Your task to perform on an android device: change the clock display to show seconds Image 0: 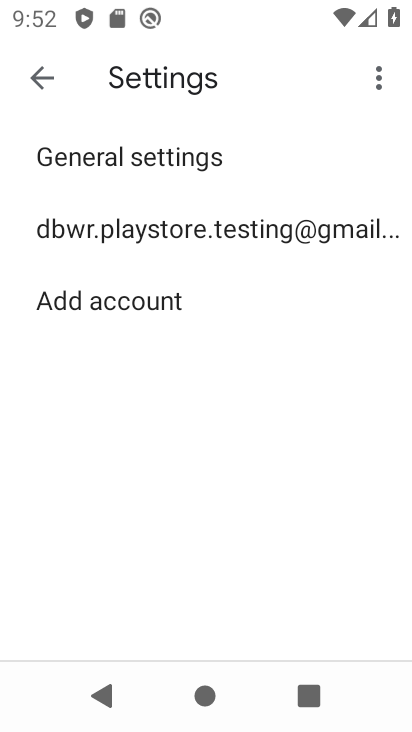
Step 0: press home button
Your task to perform on an android device: change the clock display to show seconds Image 1: 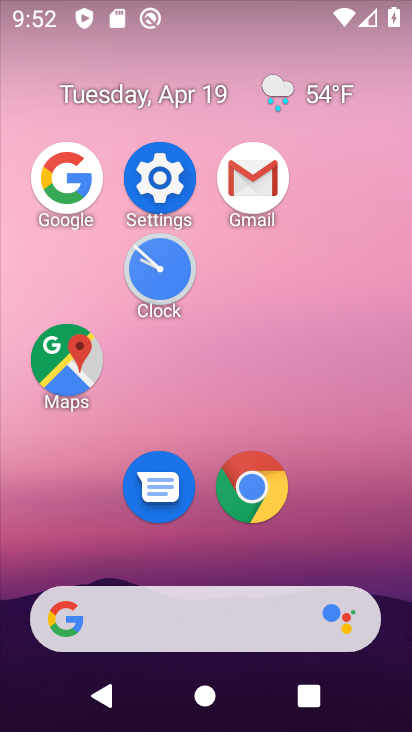
Step 1: click (187, 278)
Your task to perform on an android device: change the clock display to show seconds Image 2: 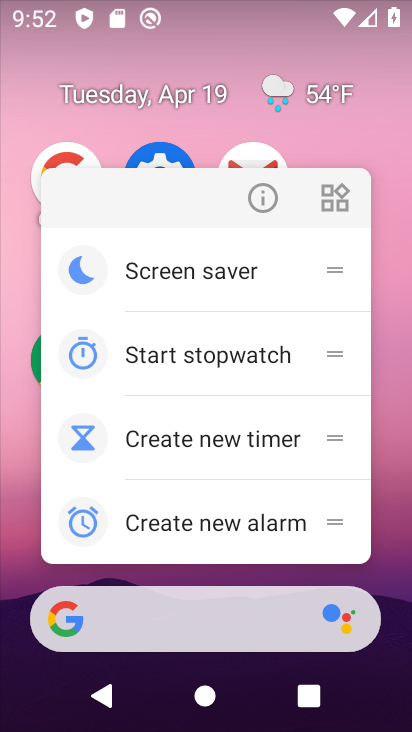
Step 2: click (405, 128)
Your task to perform on an android device: change the clock display to show seconds Image 3: 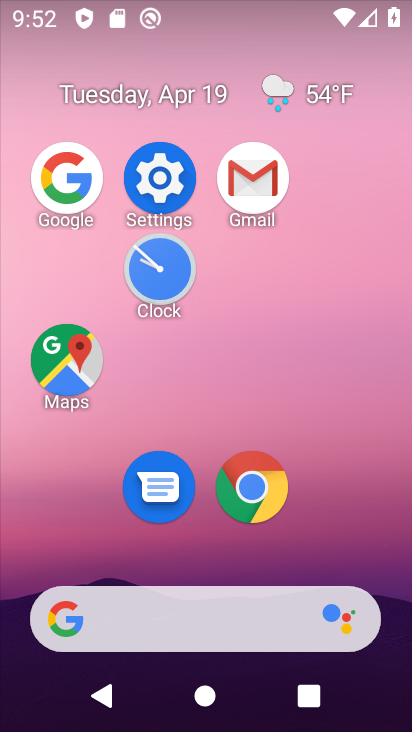
Step 3: click (151, 261)
Your task to perform on an android device: change the clock display to show seconds Image 4: 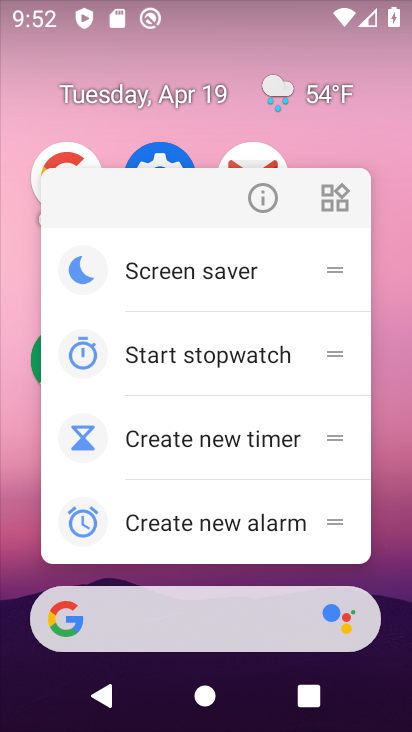
Step 4: click (365, 127)
Your task to perform on an android device: change the clock display to show seconds Image 5: 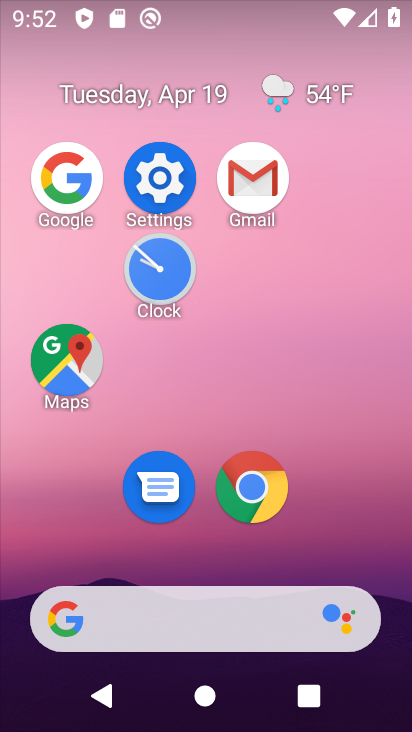
Step 5: click (163, 294)
Your task to perform on an android device: change the clock display to show seconds Image 6: 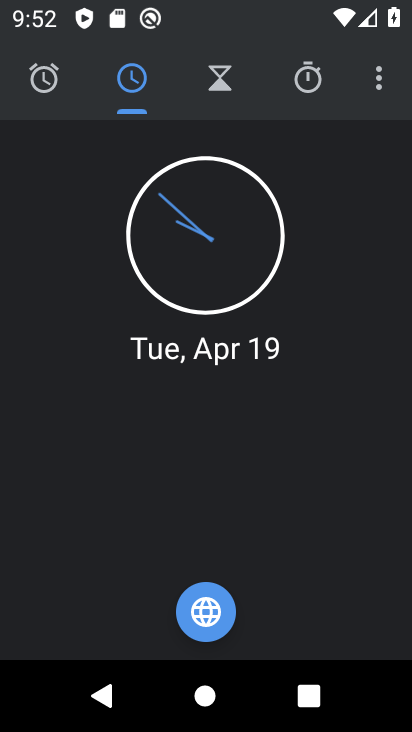
Step 6: click (379, 80)
Your task to perform on an android device: change the clock display to show seconds Image 7: 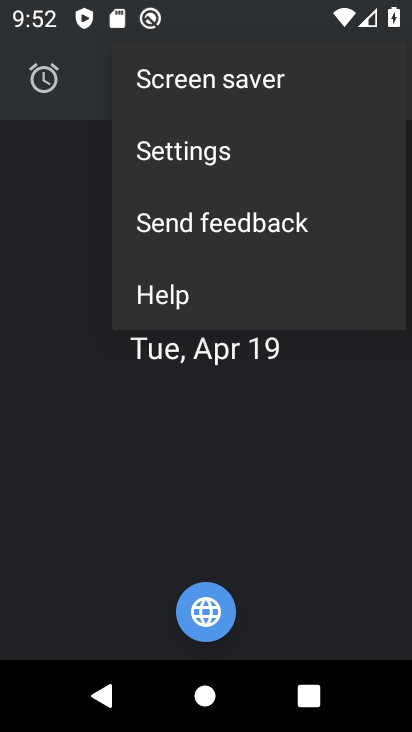
Step 7: click (248, 150)
Your task to perform on an android device: change the clock display to show seconds Image 8: 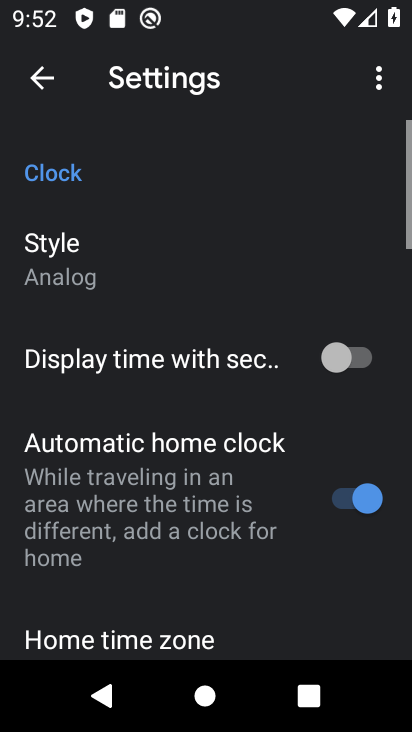
Step 8: click (271, 349)
Your task to perform on an android device: change the clock display to show seconds Image 9: 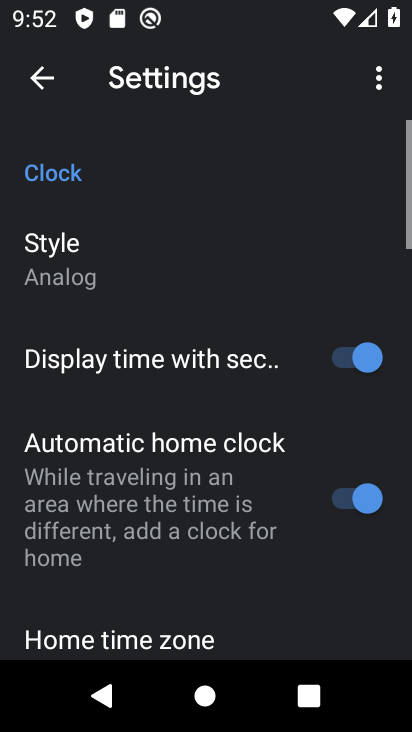
Step 9: task complete